Your task to perform on an android device: check the backup settings in the google photos Image 0: 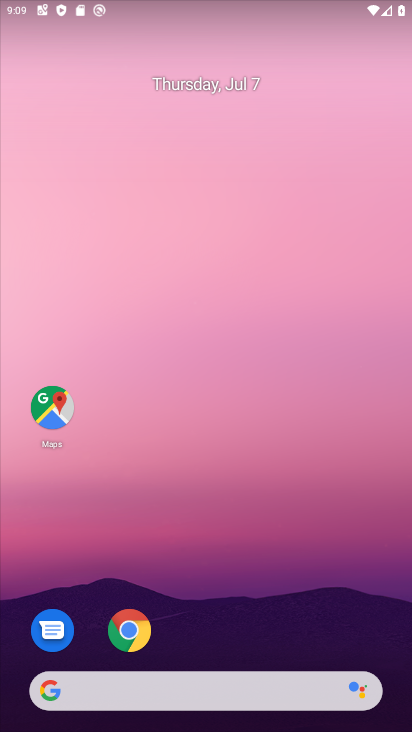
Step 0: drag from (145, 645) to (220, 204)
Your task to perform on an android device: check the backup settings in the google photos Image 1: 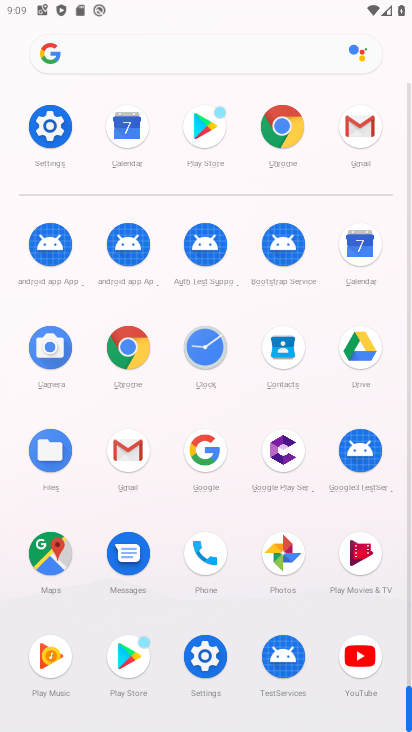
Step 1: click (276, 548)
Your task to perform on an android device: check the backup settings in the google photos Image 2: 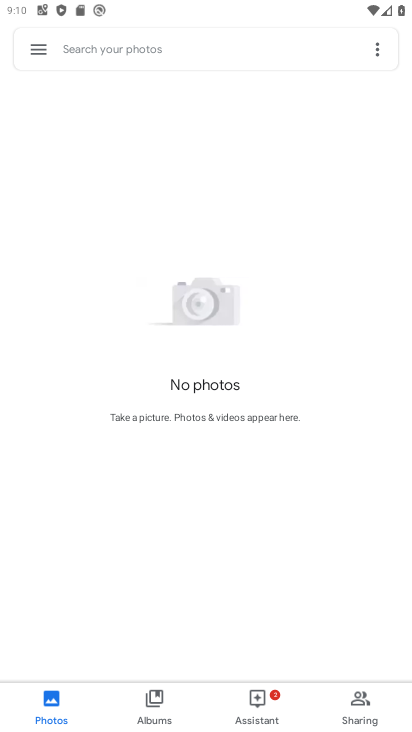
Step 2: drag from (167, 139) to (48, 91)
Your task to perform on an android device: check the backup settings in the google photos Image 3: 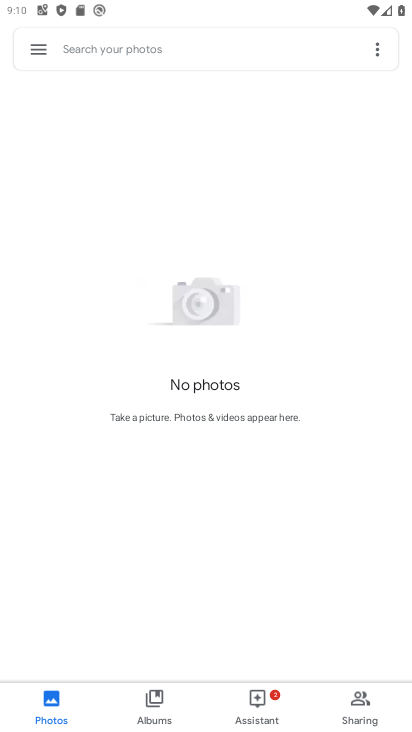
Step 3: drag from (157, 599) to (170, 344)
Your task to perform on an android device: check the backup settings in the google photos Image 4: 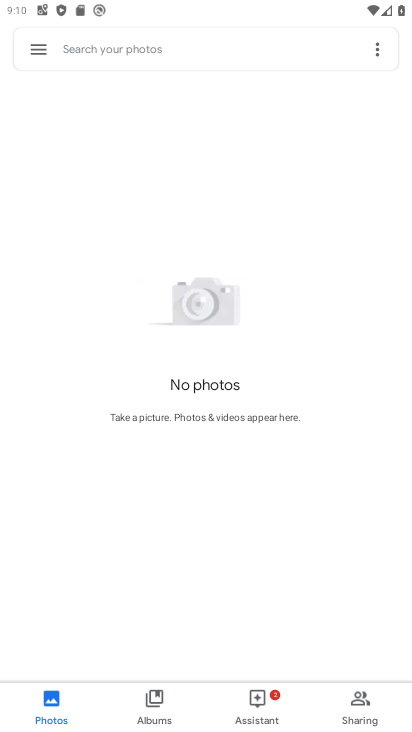
Step 4: press home button
Your task to perform on an android device: check the backup settings in the google photos Image 5: 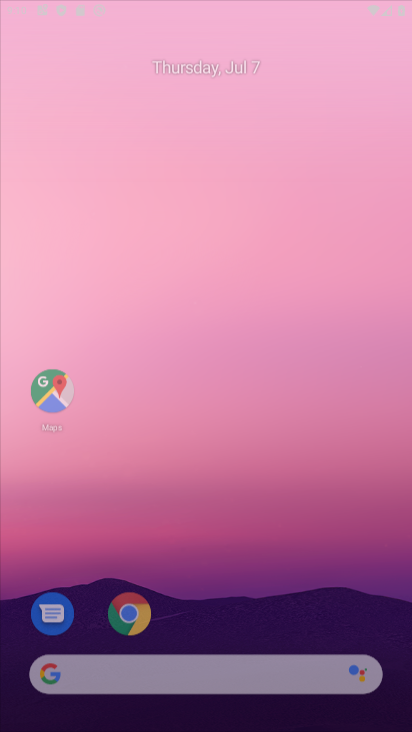
Step 5: drag from (150, 565) to (248, 137)
Your task to perform on an android device: check the backup settings in the google photos Image 6: 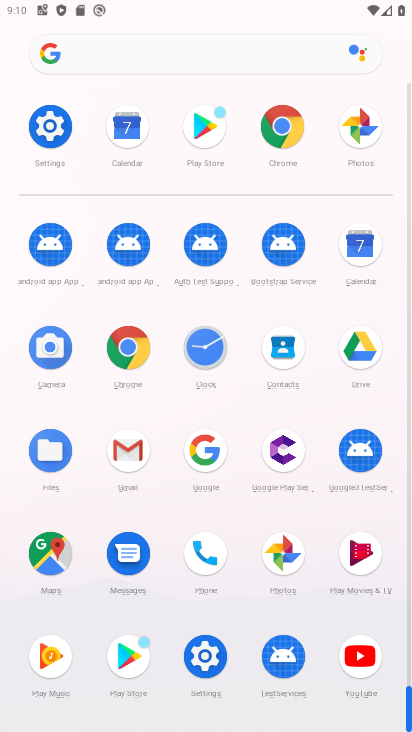
Step 6: click (296, 552)
Your task to perform on an android device: check the backup settings in the google photos Image 7: 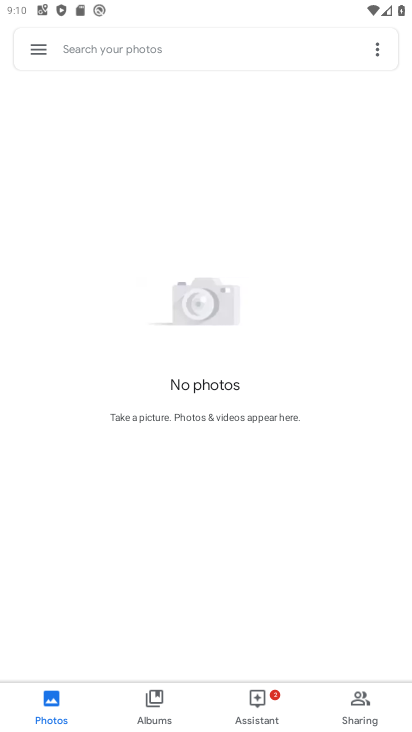
Step 7: click (33, 53)
Your task to perform on an android device: check the backup settings in the google photos Image 8: 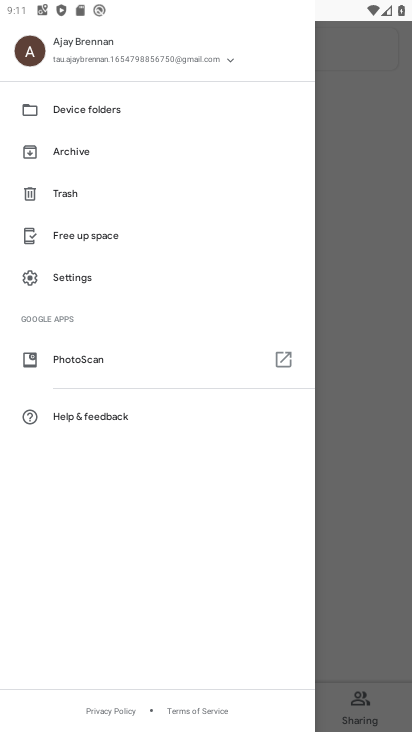
Step 8: click (66, 271)
Your task to perform on an android device: check the backup settings in the google photos Image 9: 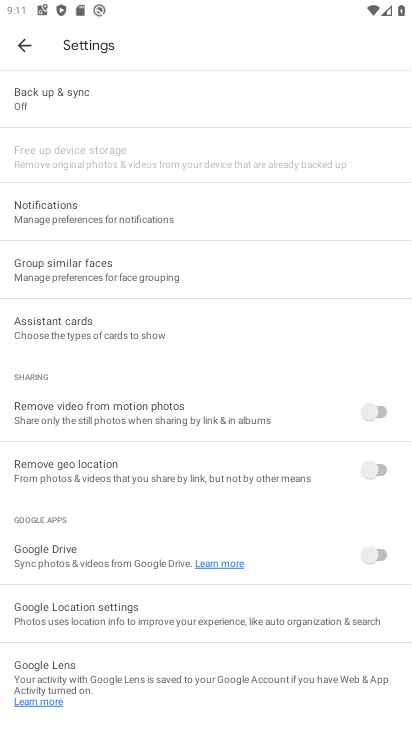
Step 9: click (59, 103)
Your task to perform on an android device: check the backup settings in the google photos Image 10: 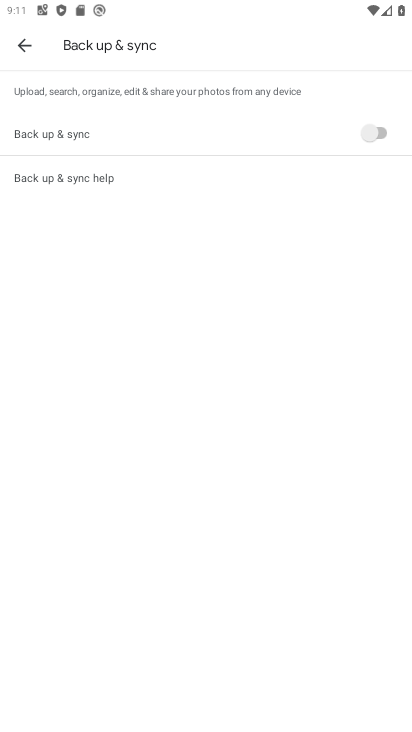
Step 10: task complete